Your task to perform on an android device: Open calendar and show me the first week of next month Image 0: 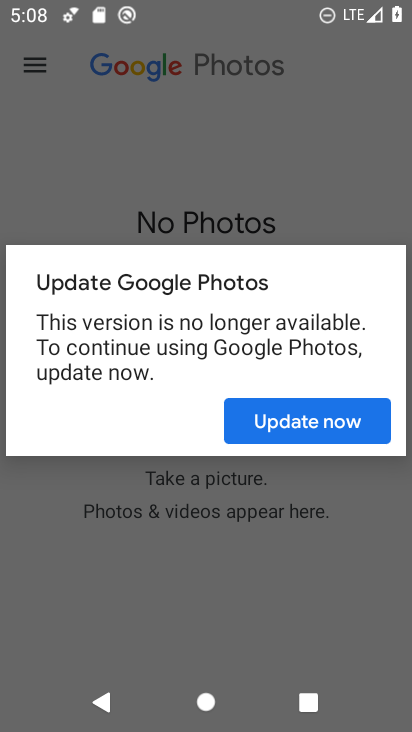
Step 0: press home button
Your task to perform on an android device: Open calendar and show me the first week of next month Image 1: 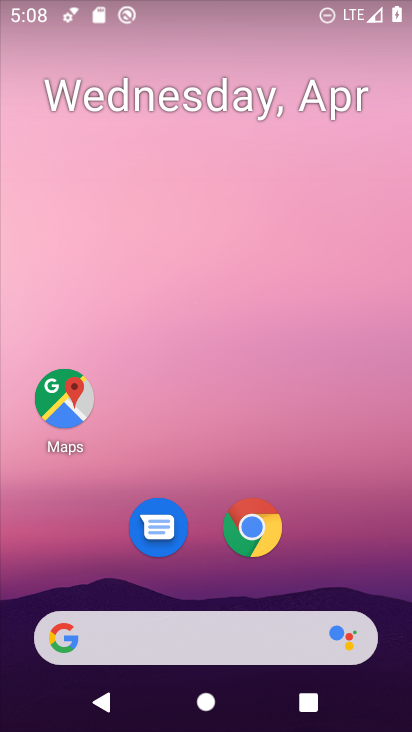
Step 1: drag from (351, 562) to (363, 1)
Your task to perform on an android device: Open calendar and show me the first week of next month Image 2: 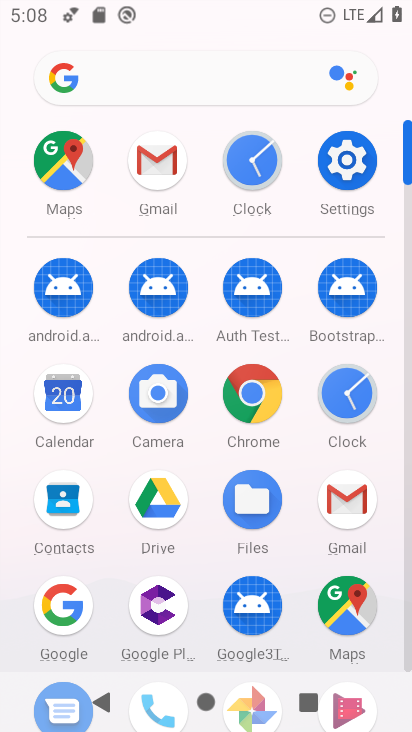
Step 2: click (56, 401)
Your task to perform on an android device: Open calendar and show me the first week of next month Image 3: 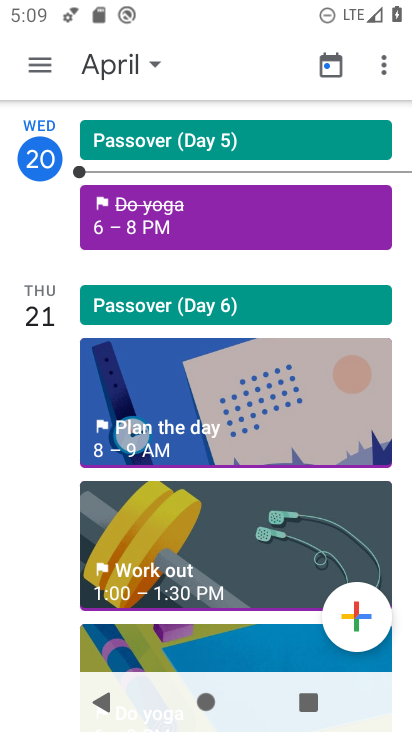
Step 3: click (156, 68)
Your task to perform on an android device: Open calendar and show me the first week of next month Image 4: 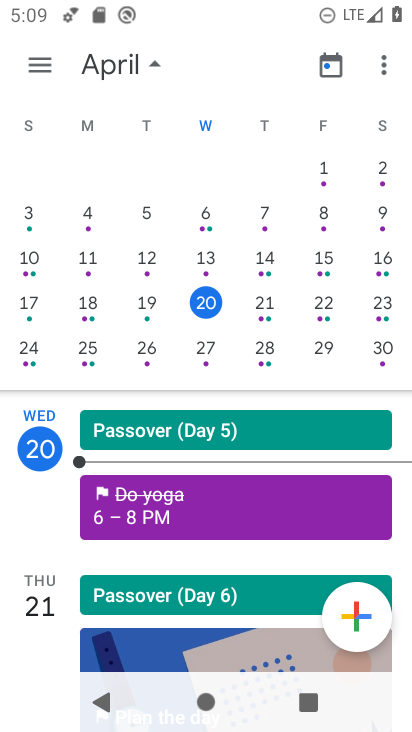
Step 4: drag from (306, 196) to (0, 225)
Your task to perform on an android device: Open calendar and show me the first week of next month Image 5: 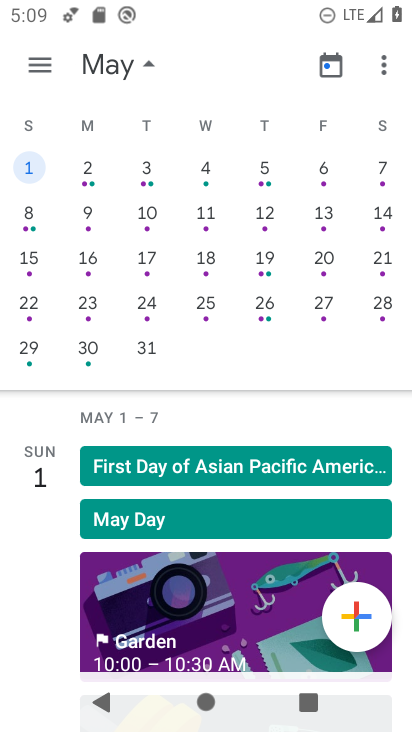
Step 5: click (44, 65)
Your task to perform on an android device: Open calendar and show me the first week of next month Image 6: 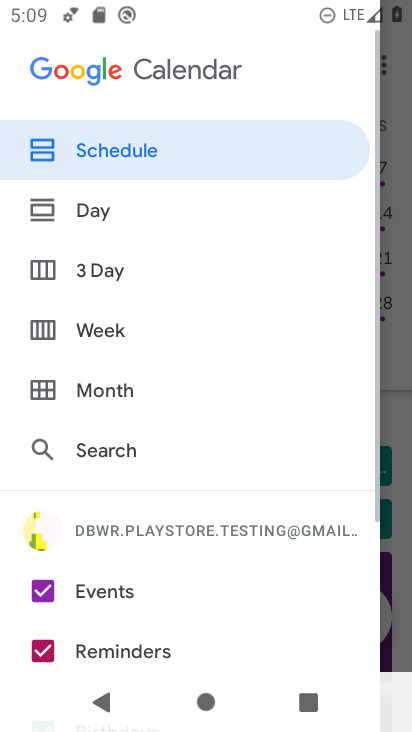
Step 6: click (95, 323)
Your task to perform on an android device: Open calendar and show me the first week of next month Image 7: 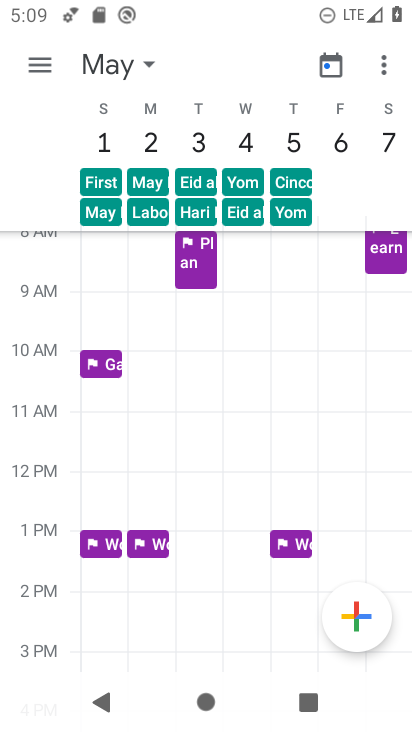
Step 7: task complete